Your task to perform on an android device: Open sound settings Image 0: 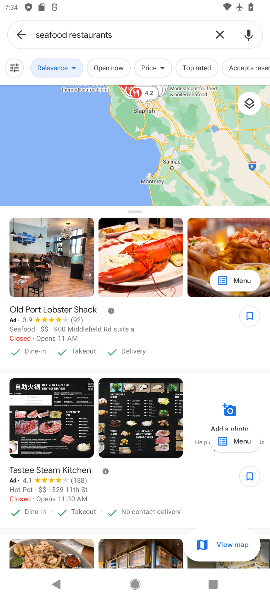
Step 0: press home button
Your task to perform on an android device: Open sound settings Image 1: 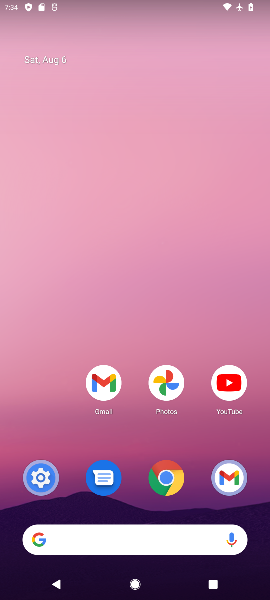
Step 1: click (38, 480)
Your task to perform on an android device: Open sound settings Image 2: 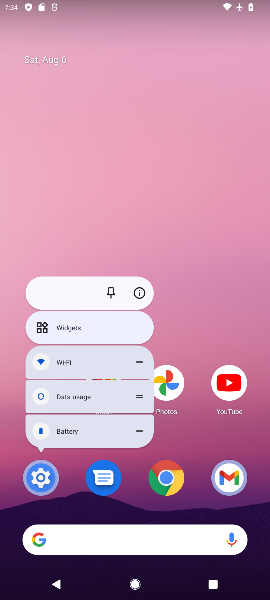
Step 2: click (43, 484)
Your task to perform on an android device: Open sound settings Image 3: 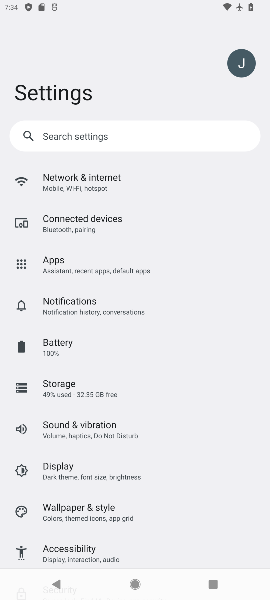
Step 3: click (85, 429)
Your task to perform on an android device: Open sound settings Image 4: 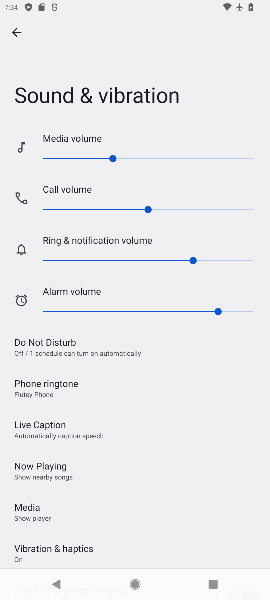
Step 4: task complete